Your task to perform on an android device: toggle location history Image 0: 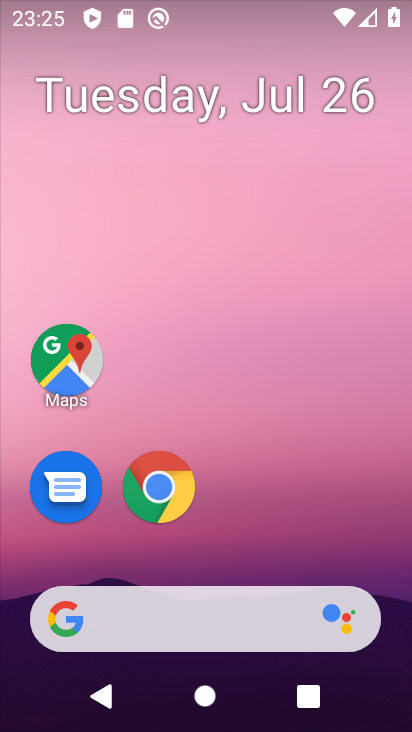
Step 0: drag from (247, 402) to (302, 14)
Your task to perform on an android device: toggle location history Image 1: 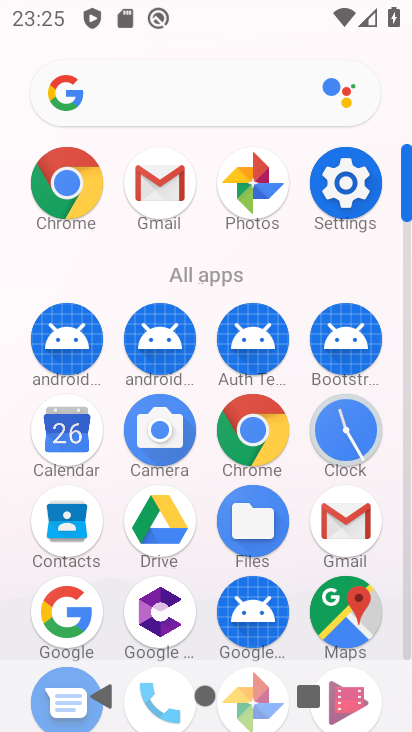
Step 1: click (350, 178)
Your task to perform on an android device: toggle location history Image 2: 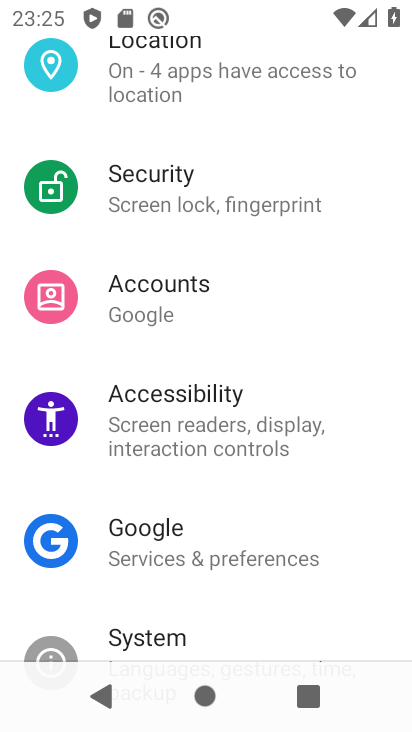
Step 2: click (146, 73)
Your task to perform on an android device: toggle location history Image 3: 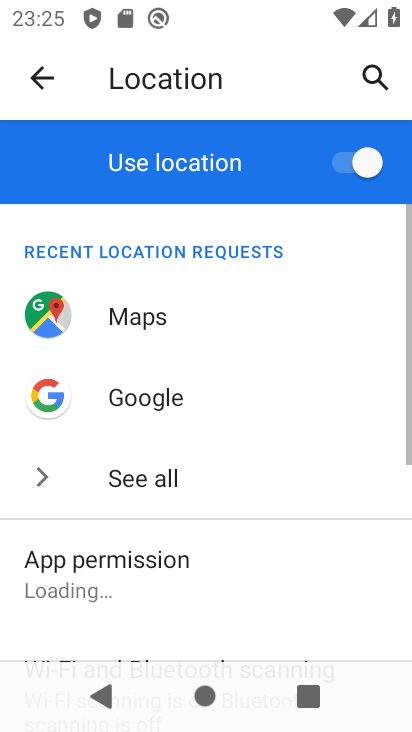
Step 3: drag from (127, 559) to (283, 22)
Your task to perform on an android device: toggle location history Image 4: 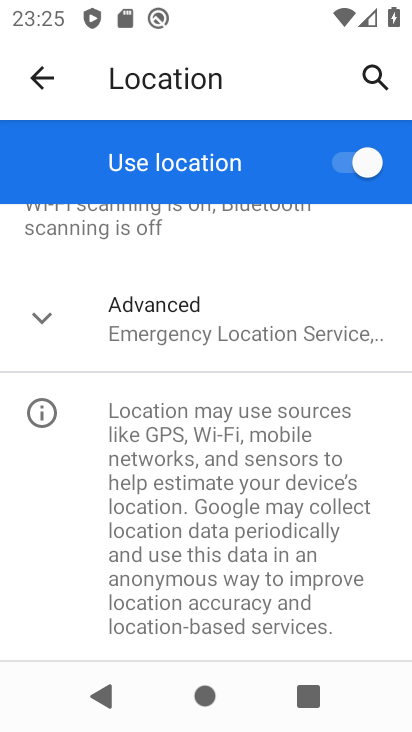
Step 4: click (226, 328)
Your task to perform on an android device: toggle location history Image 5: 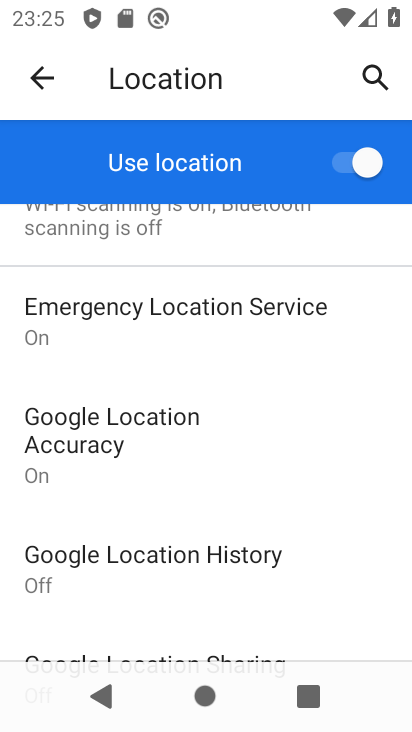
Step 5: click (215, 555)
Your task to perform on an android device: toggle location history Image 6: 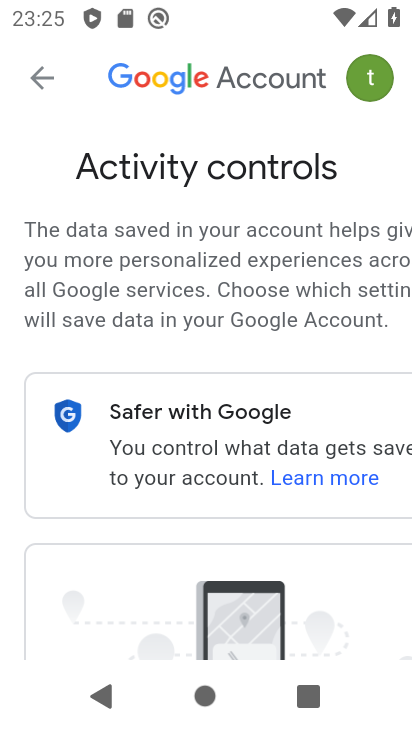
Step 6: task complete